Your task to perform on an android device: Open Wikipedia Image 0: 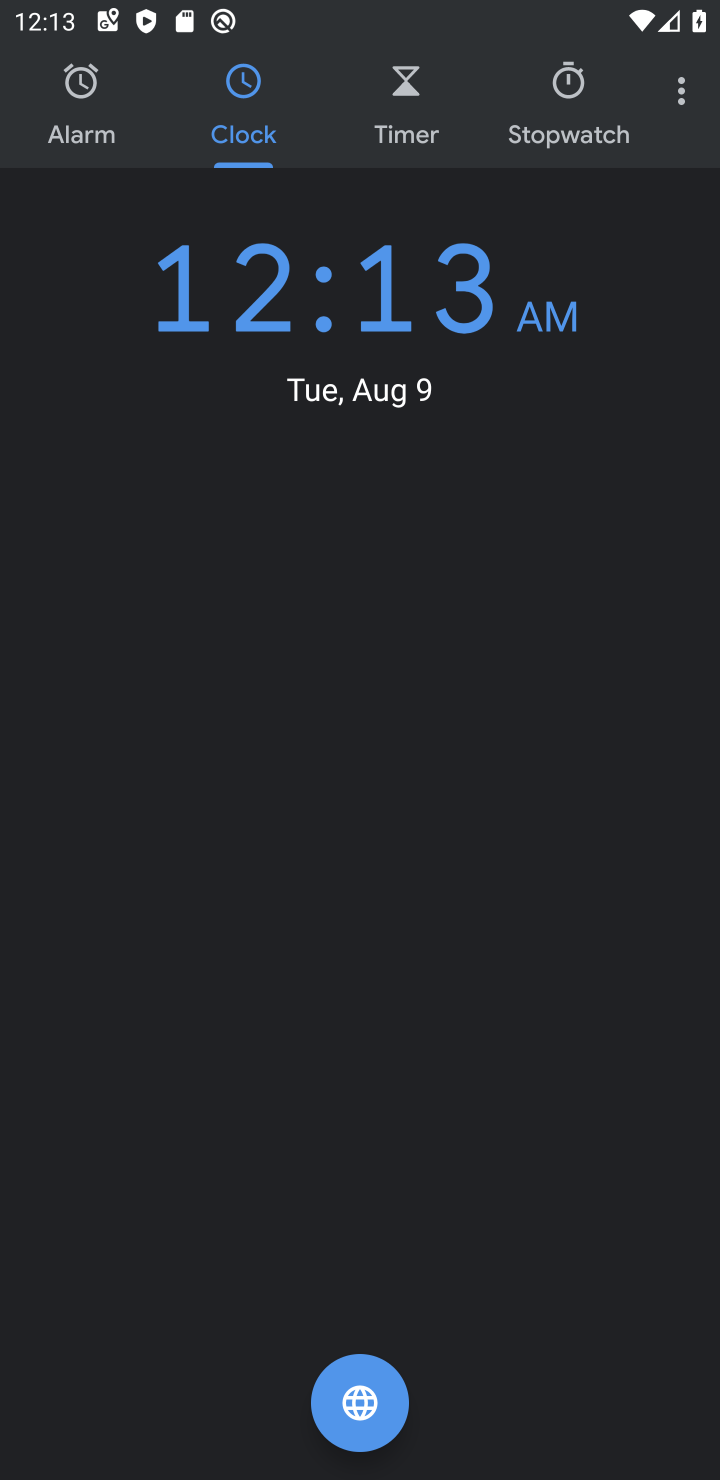
Step 0: press home button
Your task to perform on an android device: Open Wikipedia Image 1: 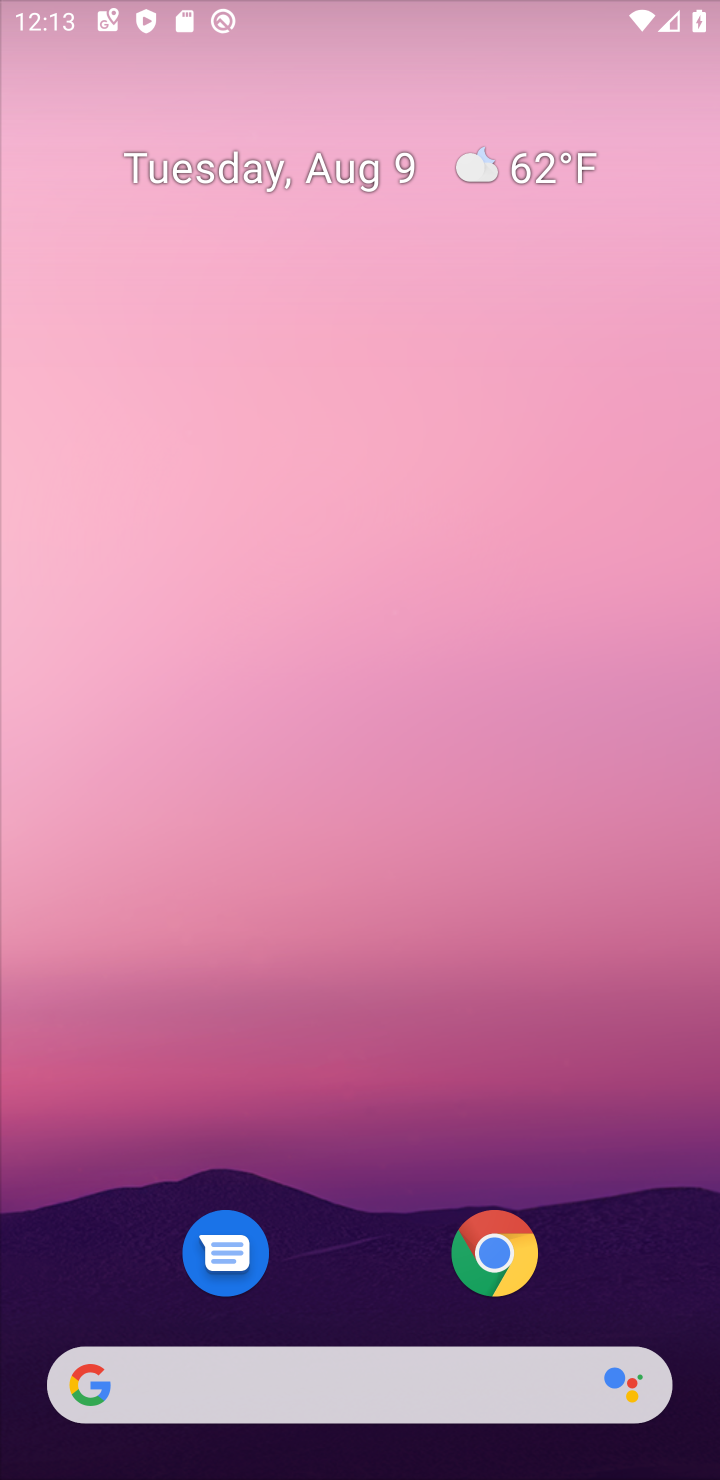
Step 1: drag from (663, 1061) to (439, 110)
Your task to perform on an android device: Open Wikipedia Image 2: 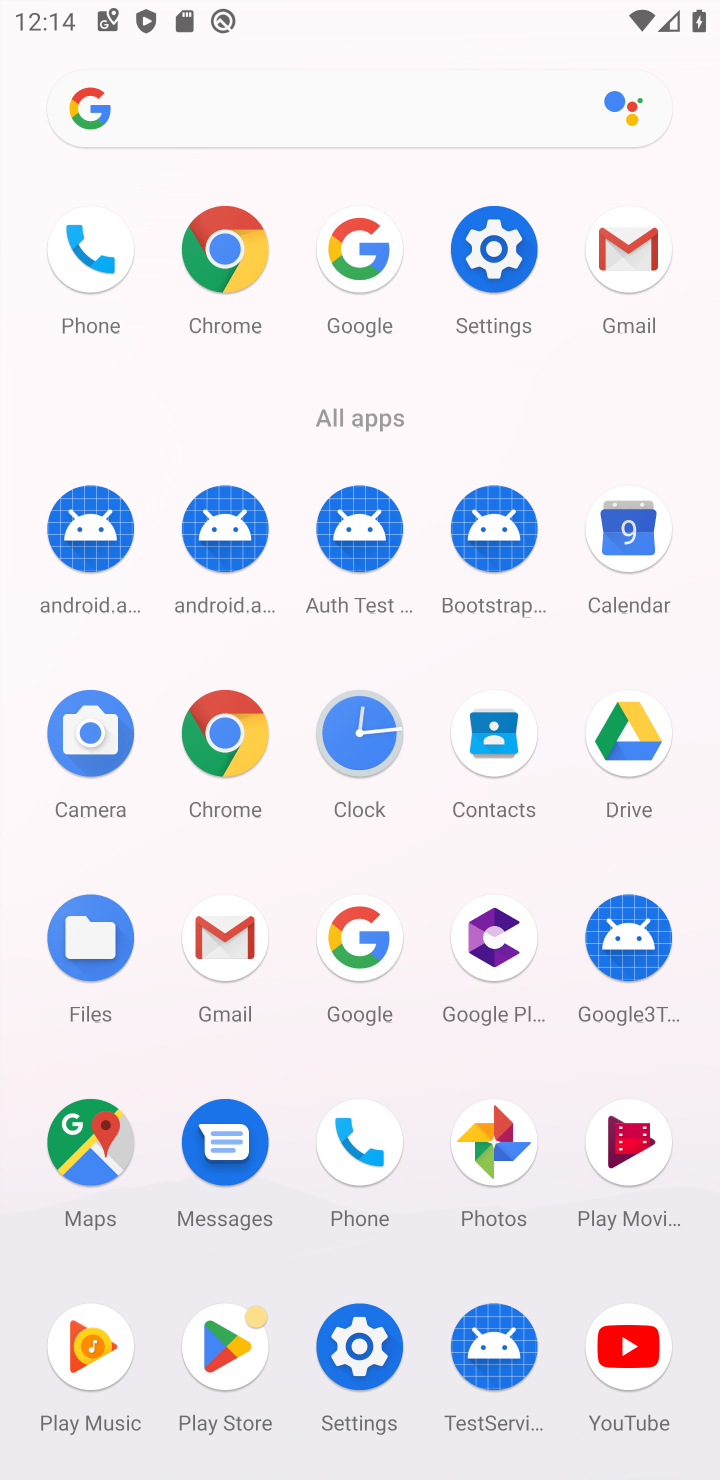
Step 2: click (326, 957)
Your task to perform on an android device: Open Wikipedia Image 3: 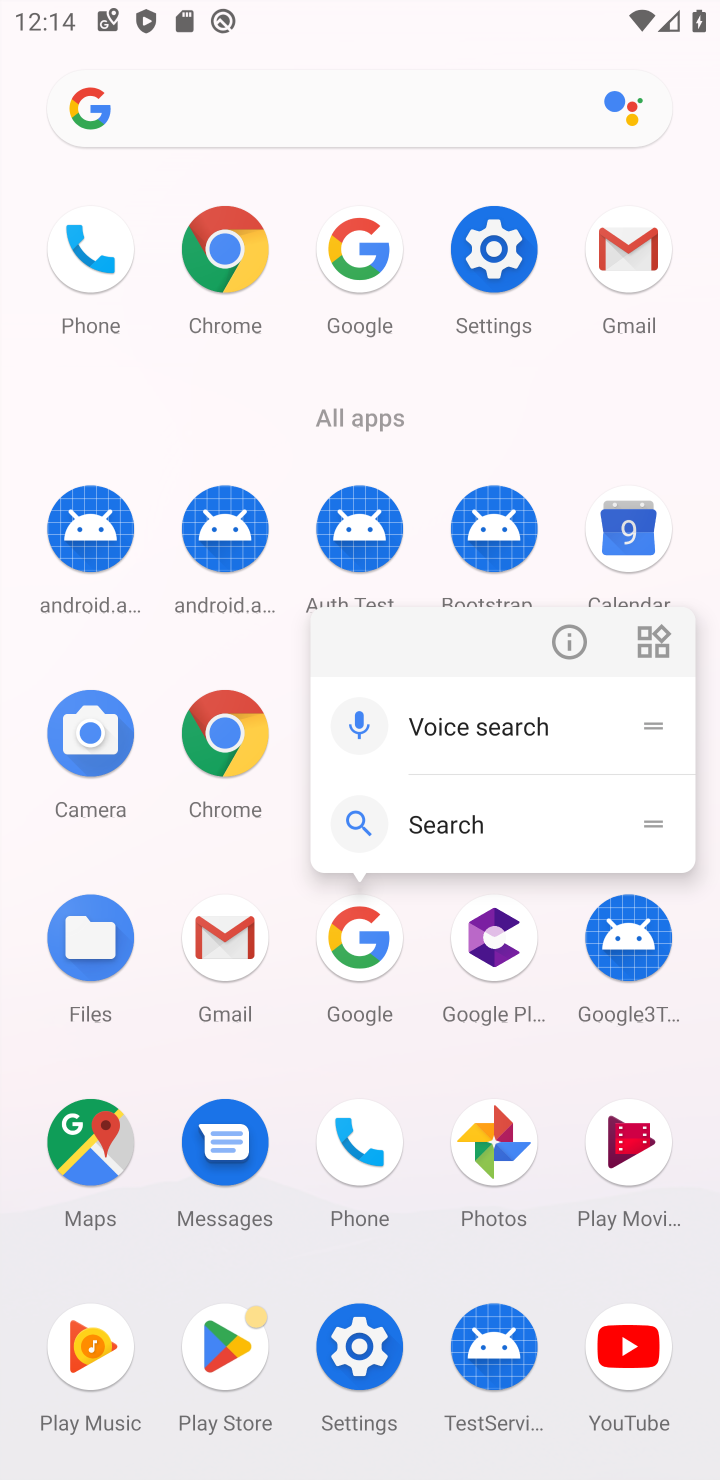
Step 3: click (342, 961)
Your task to perform on an android device: Open Wikipedia Image 4: 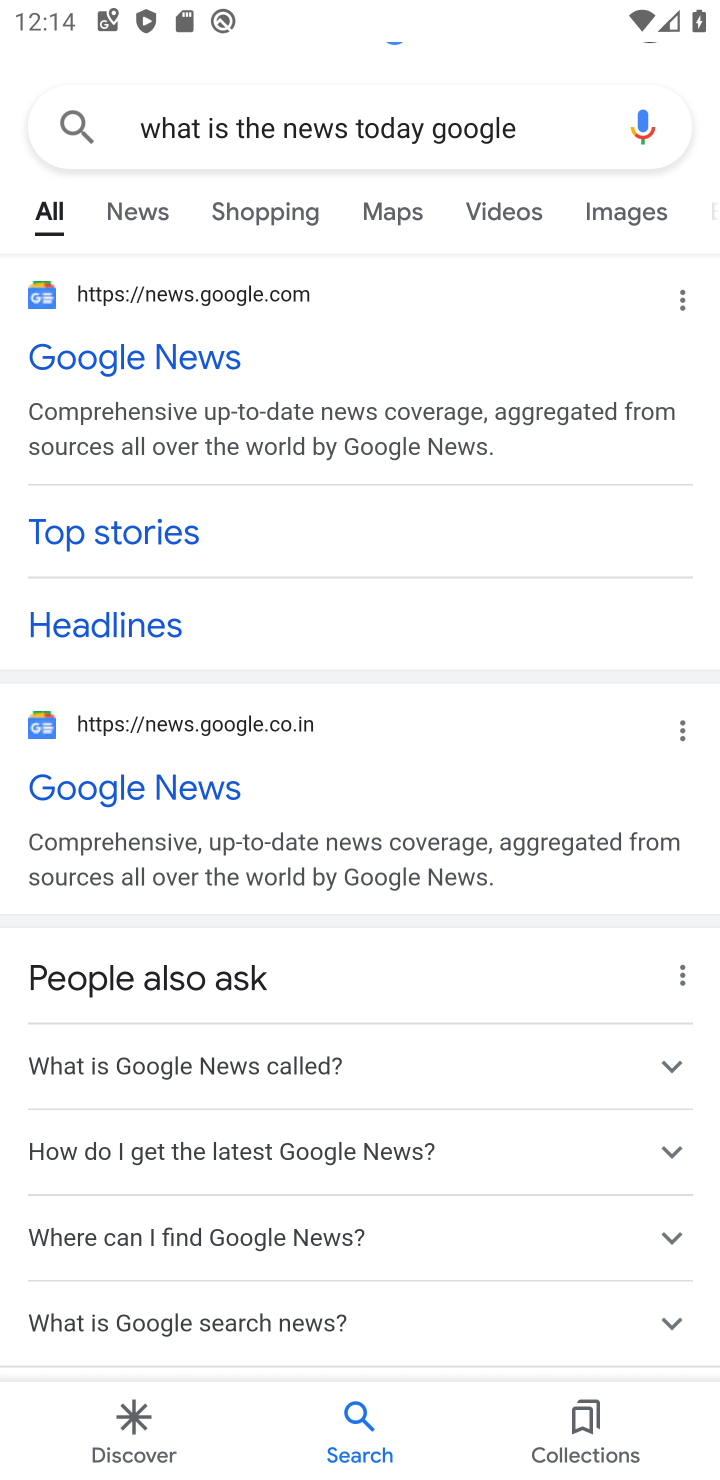
Step 4: press back button
Your task to perform on an android device: Open Wikipedia Image 5: 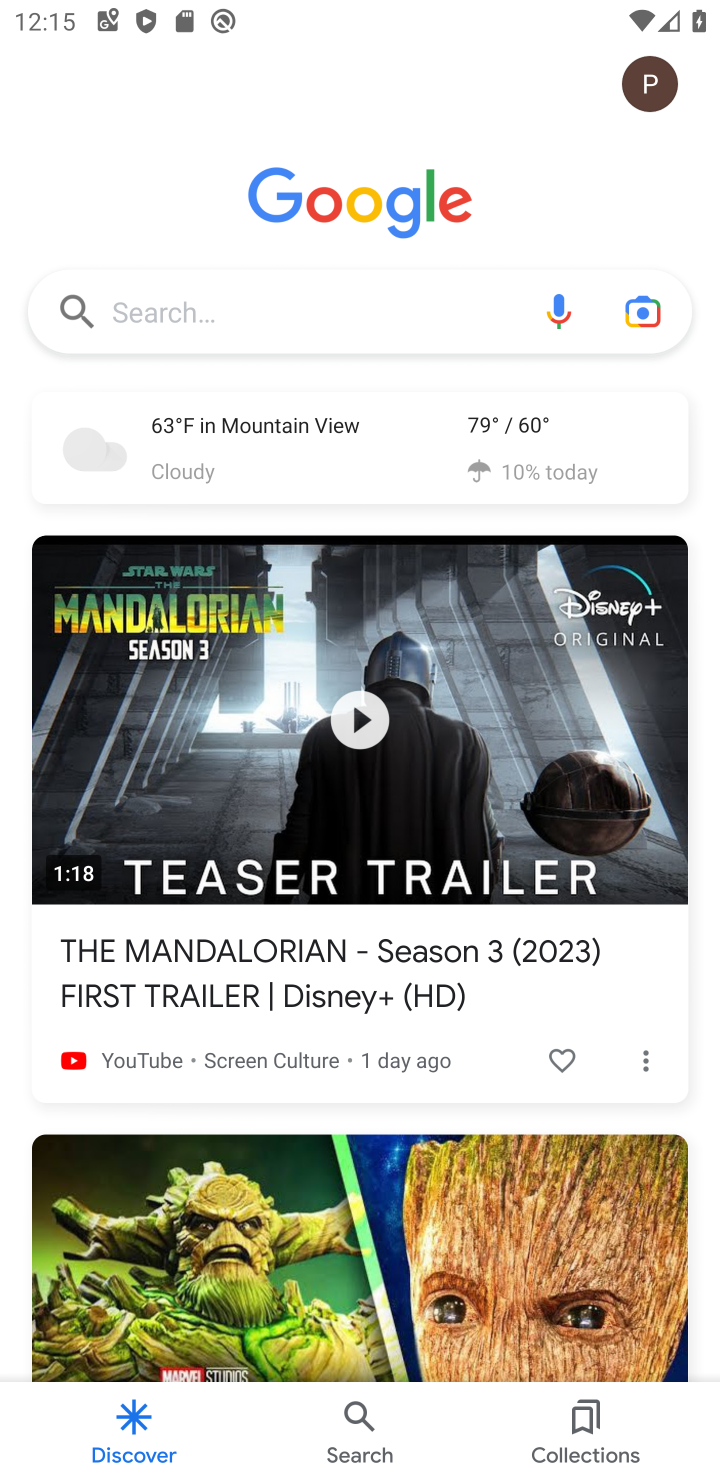
Step 5: click (159, 317)
Your task to perform on an android device: Open Wikipedia Image 6: 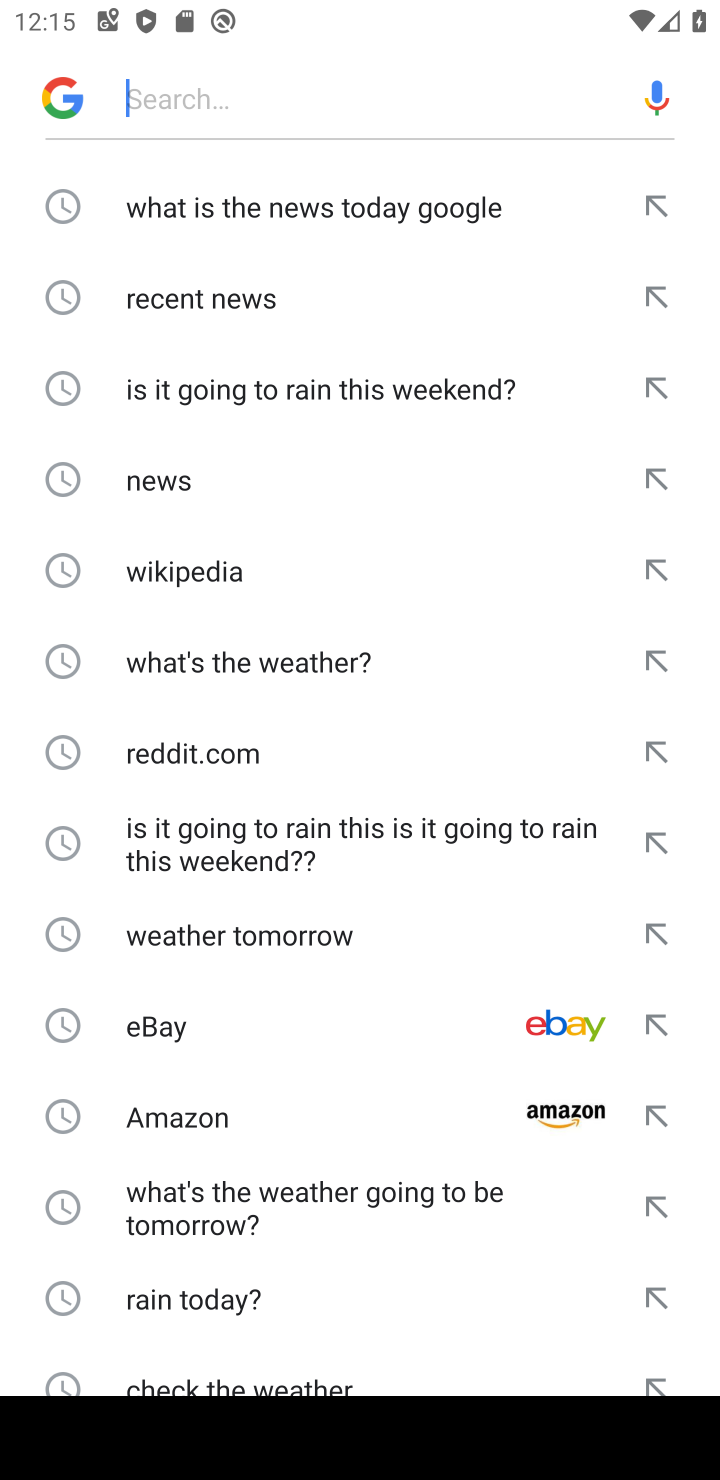
Step 6: type "Wikipedia"
Your task to perform on an android device: Open Wikipedia Image 7: 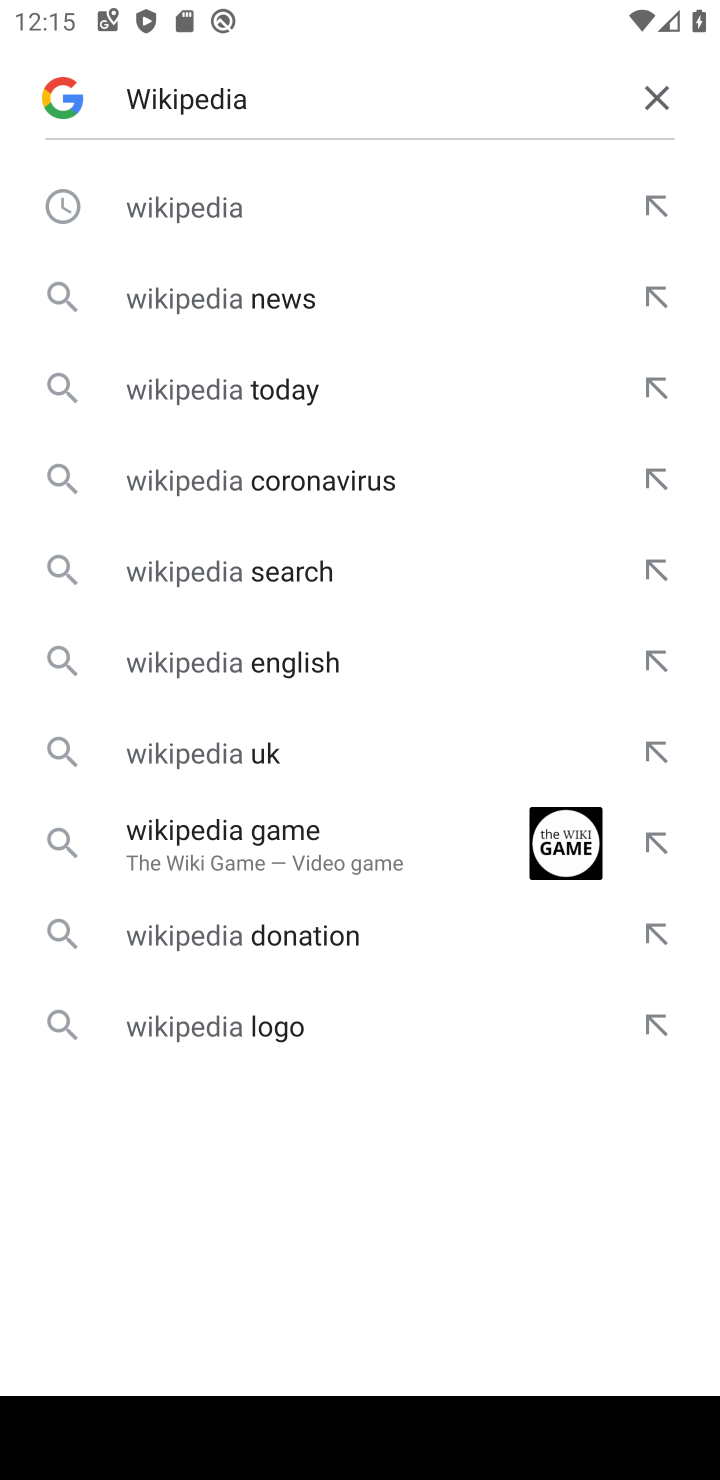
Step 7: click (223, 218)
Your task to perform on an android device: Open Wikipedia Image 8: 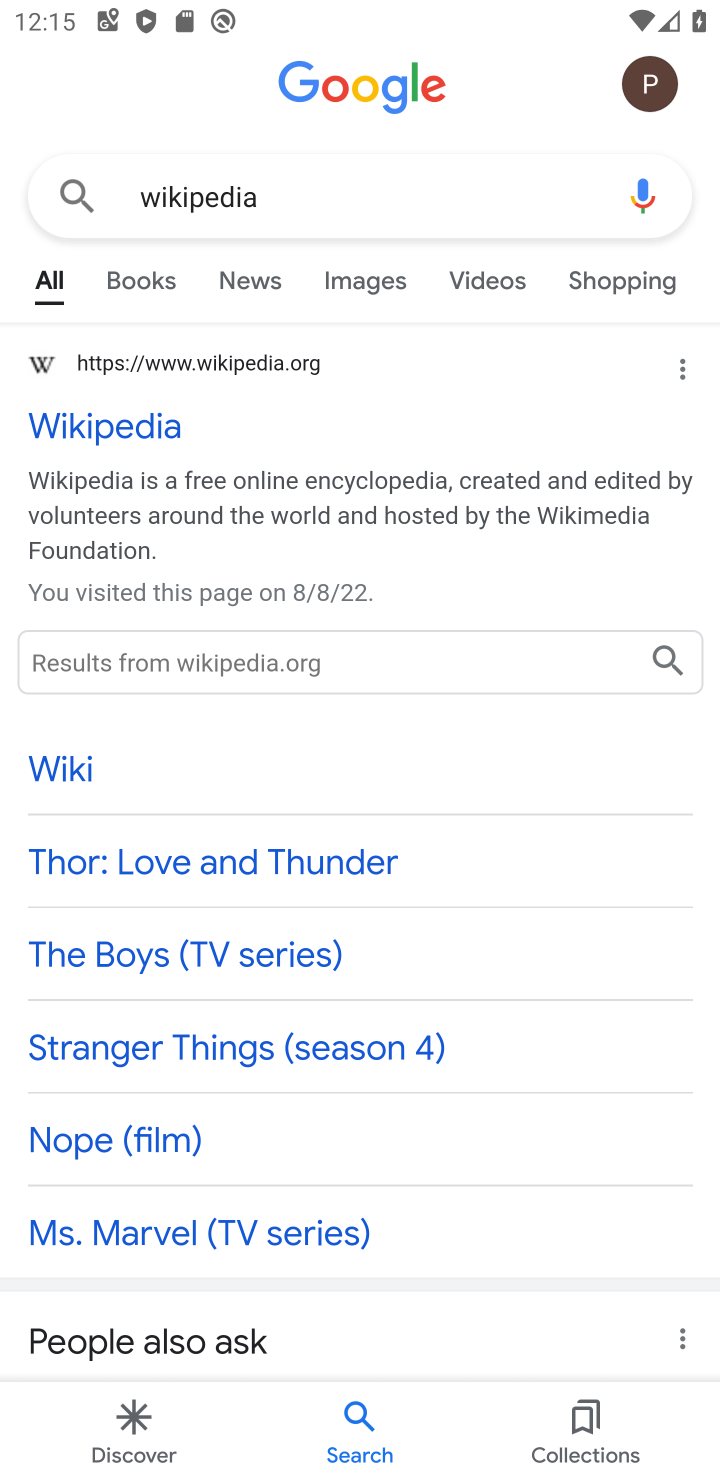
Step 8: task complete